Your task to perform on an android device: check out phone information Image 0: 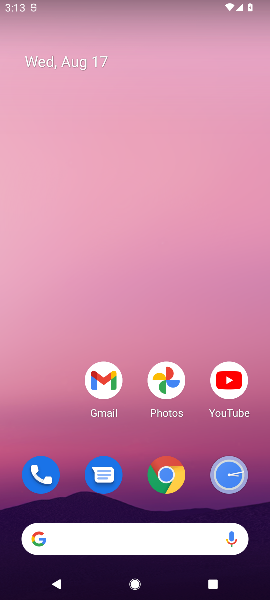
Step 0: drag from (128, 503) to (114, 13)
Your task to perform on an android device: check out phone information Image 1: 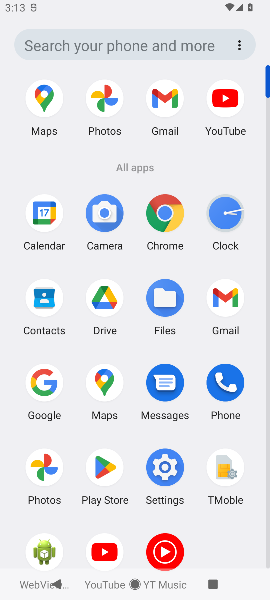
Step 1: click (164, 473)
Your task to perform on an android device: check out phone information Image 2: 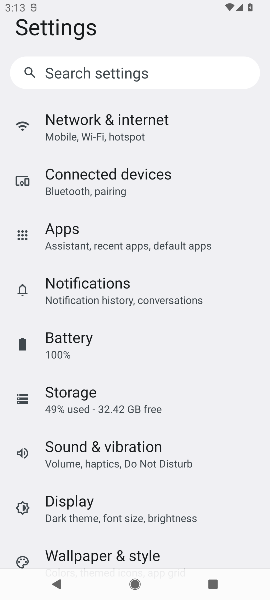
Step 2: drag from (164, 473) to (143, 22)
Your task to perform on an android device: check out phone information Image 3: 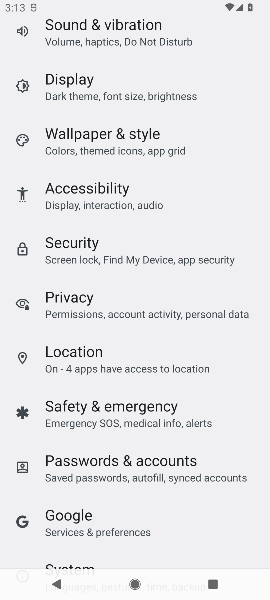
Step 3: drag from (178, 444) to (257, 1)
Your task to perform on an android device: check out phone information Image 4: 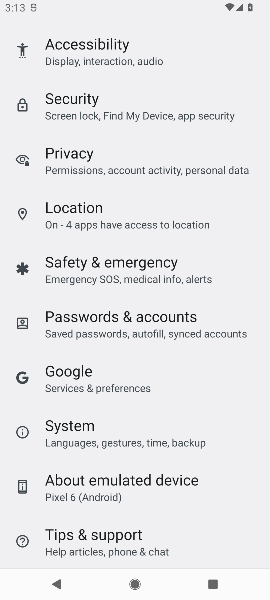
Step 4: click (44, 482)
Your task to perform on an android device: check out phone information Image 5: 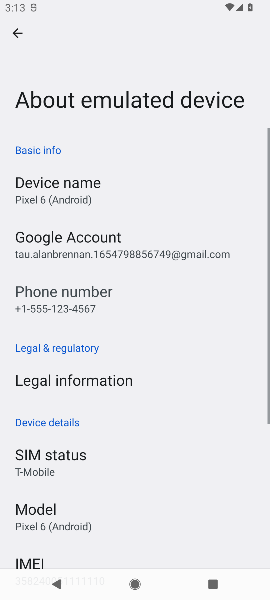
Step 5: task complete